Your task to perform on an android device: empty trash in google photos Image 0: 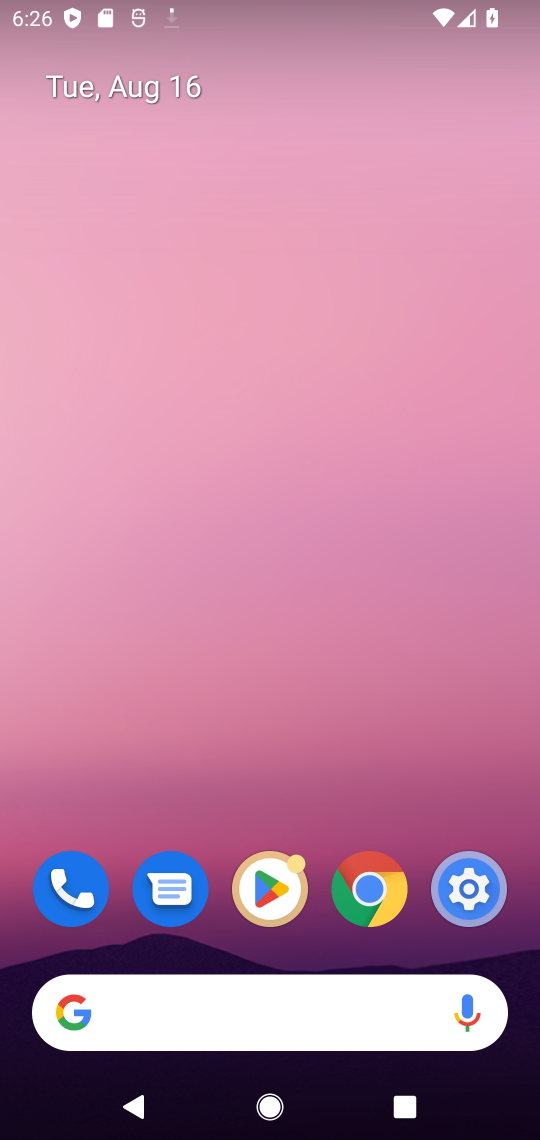
Step 0: drag from (389, 745) to (283, 0)
Your task to perform on an android device: empty trash in google photos Image 1: 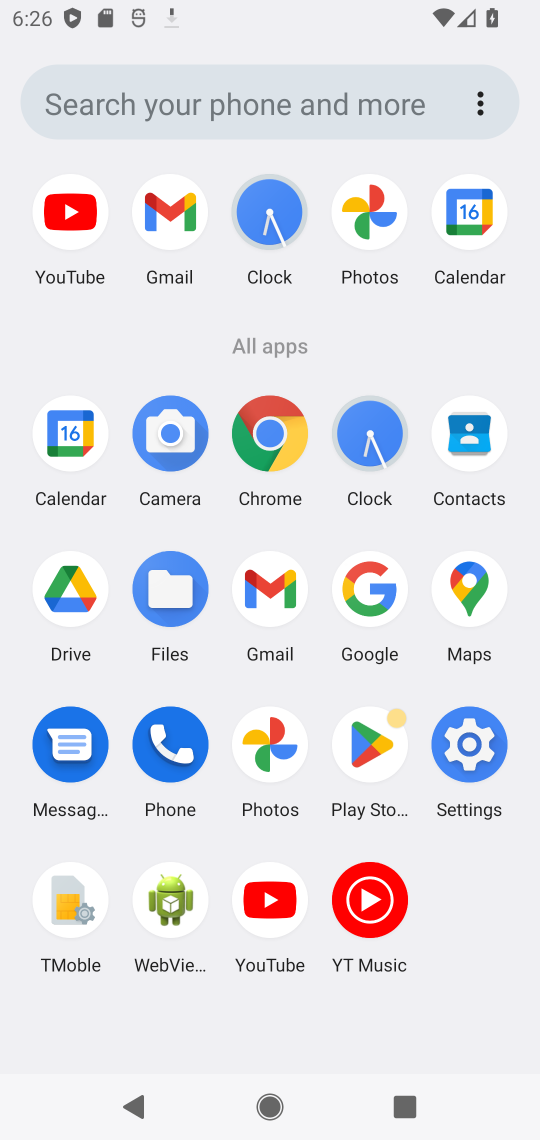
Step 1: click (376, 221)
Your task to perform on an android device: empty trash in google photos Image 2: 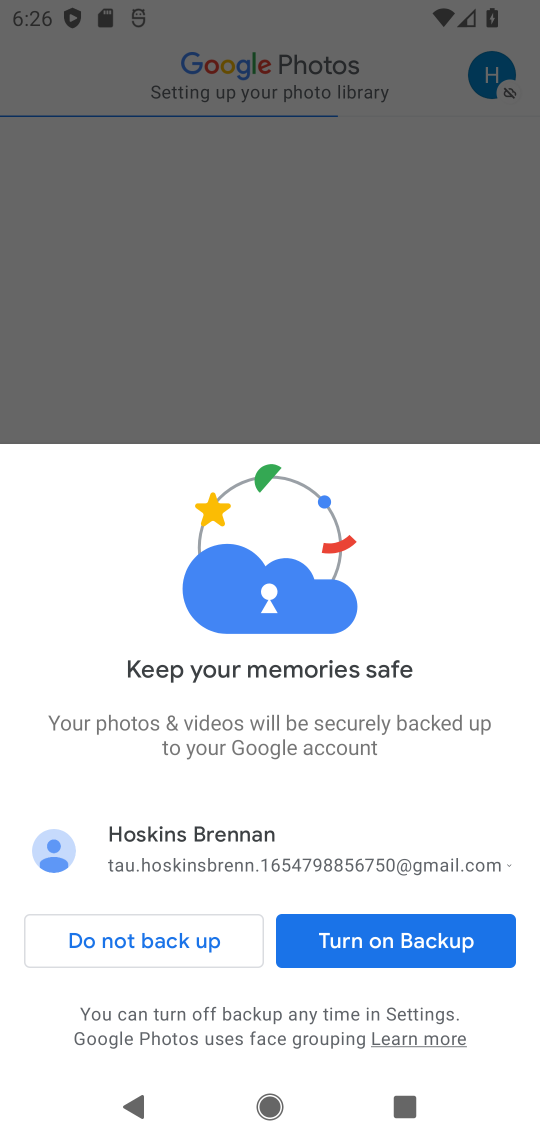
Step 2: click (388, 941)
Your task to perform on an android device: empty trash in google photos Image 3: 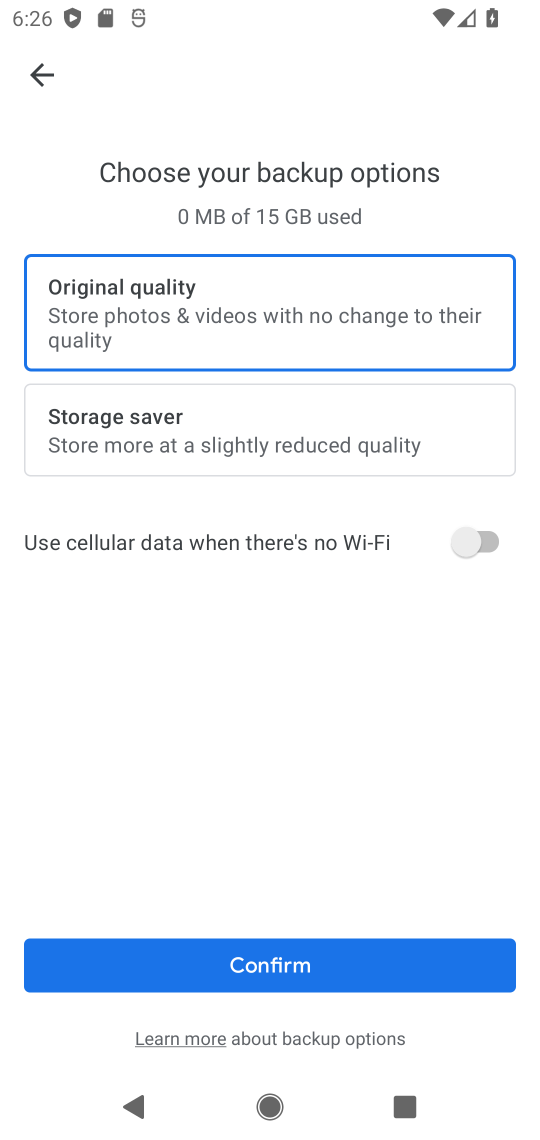
Step 3: click (395, 951)
Your task to perform on an android device: empty trash in google photos Image 4: 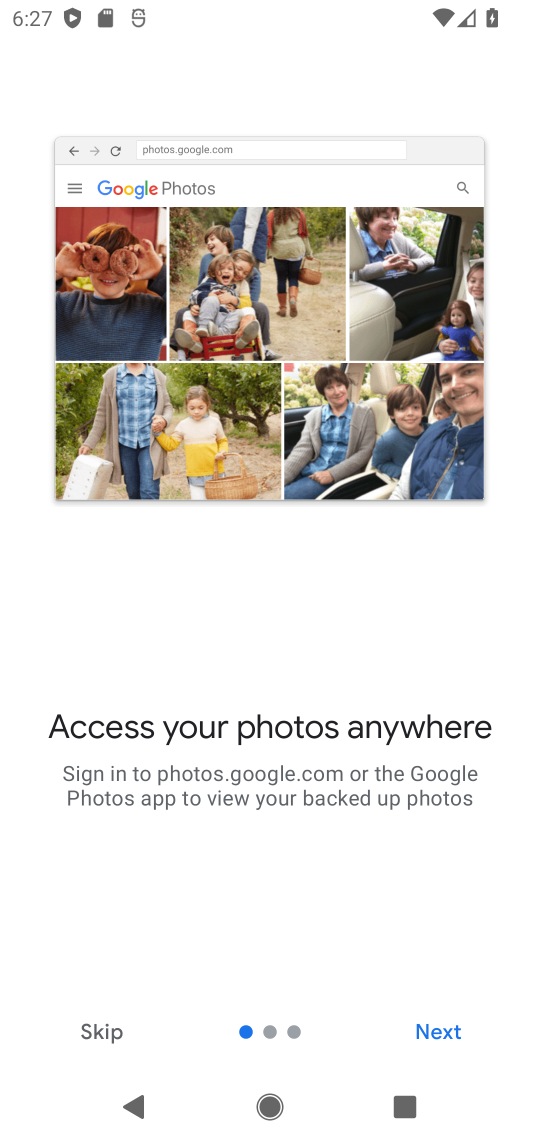
Step 4: click (418, 1022)
Your task to perform on an android device: empty trash in google photos Image 5: 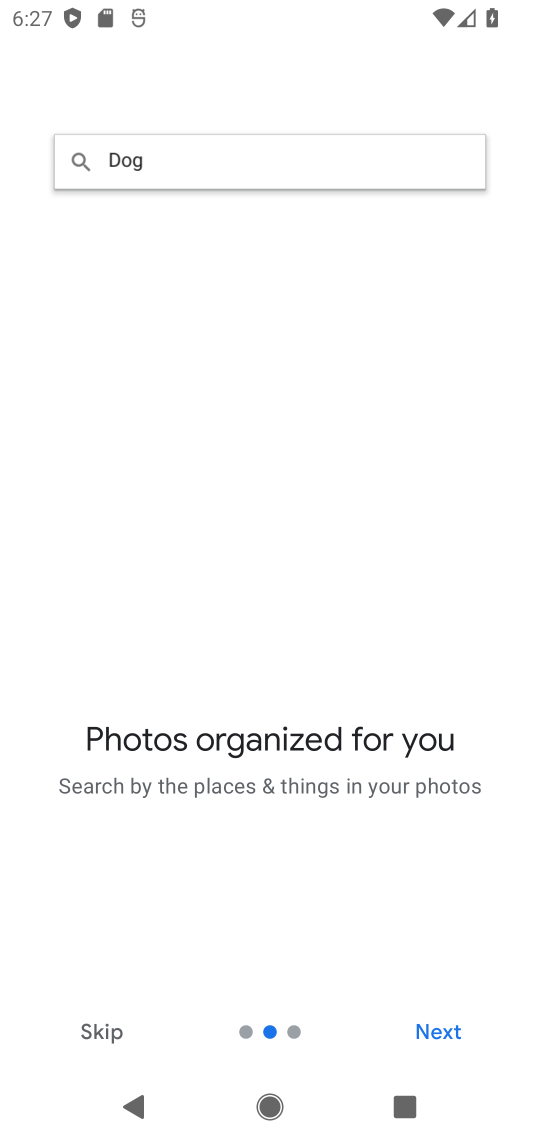
Step 5: click (465, 1019)
Your task to perform on an android device: empty trash in google photos Image 6: 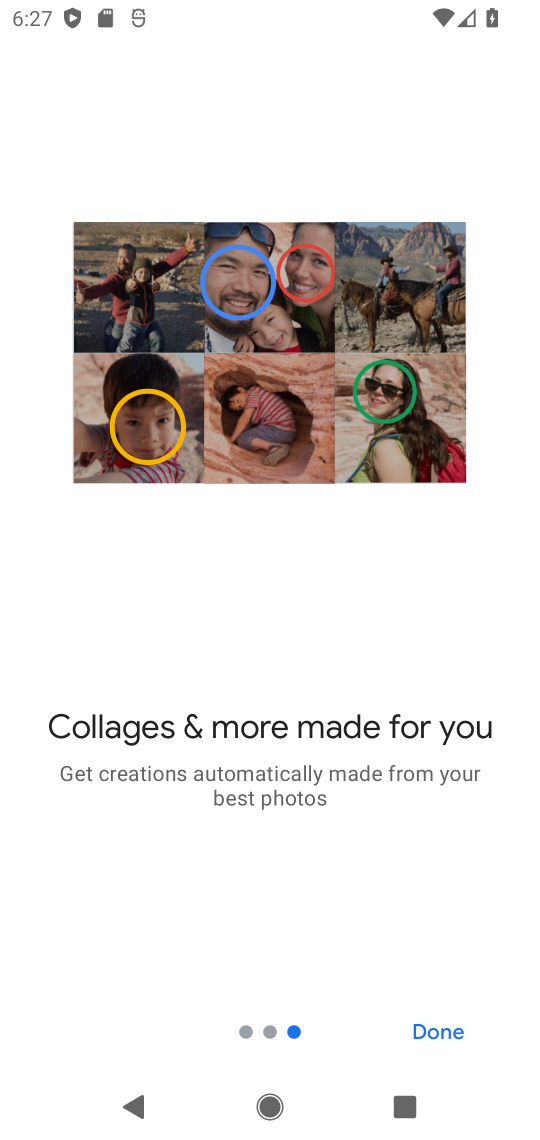
Step 6: click (464, 1018)
Your task to perform on an android device: empty trash in google photos Image 7: 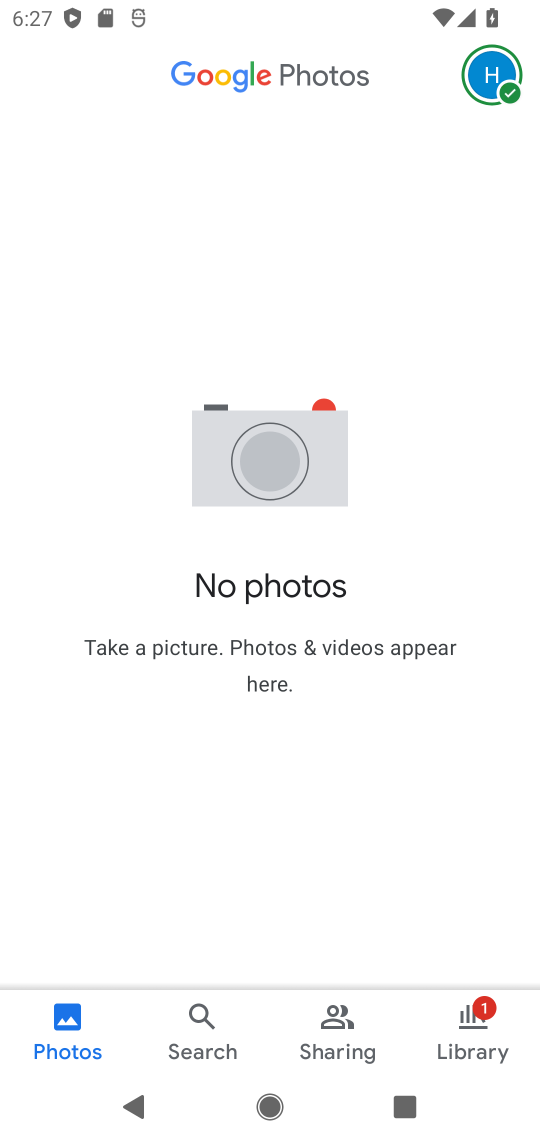
Step 7: click (497, 63)
Your task to perform on an android device: empty trash in google photos Image 8: 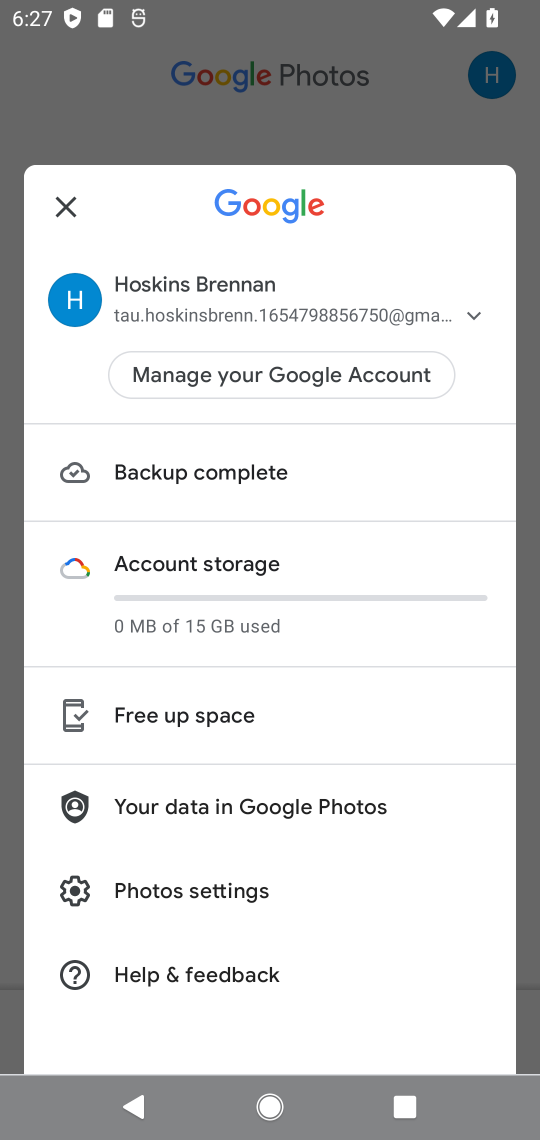
Step 8: click (46, 206)
Your task to perform on an android device: empty trash in google photos Image 9: 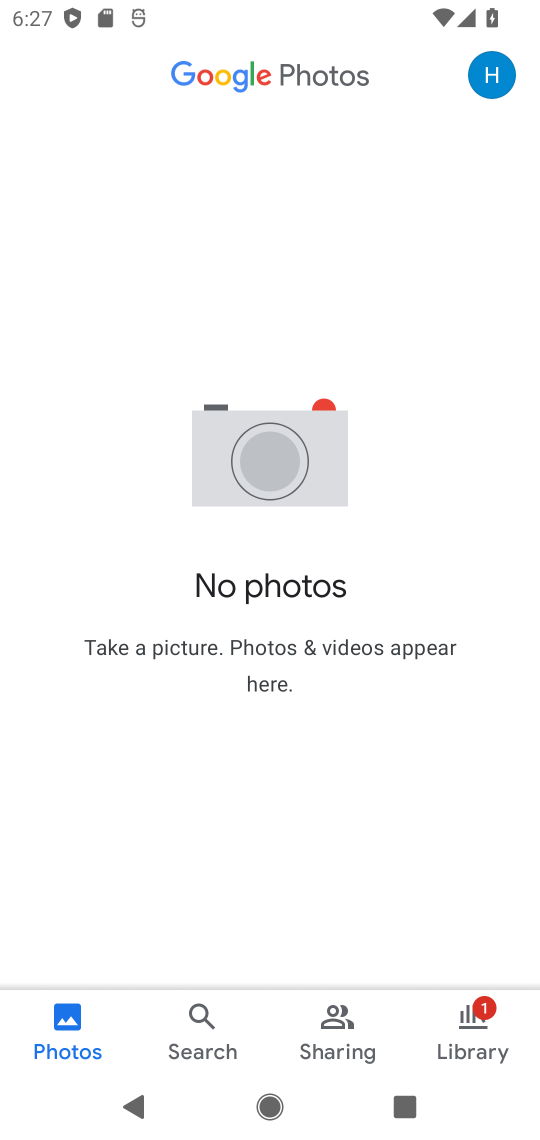
Step 9: click (495, 1036)
Your task to perform on an android device: empty trash in google photos Image 10: 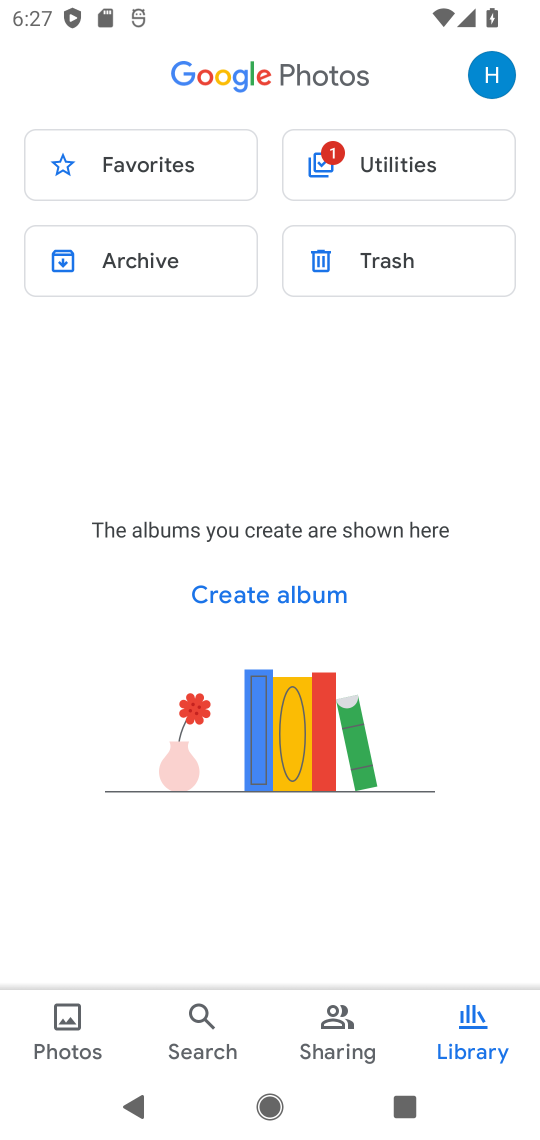
Step 10: click (346, 267)
Your task to perform on an android device: empty trash in google photos Image 11: 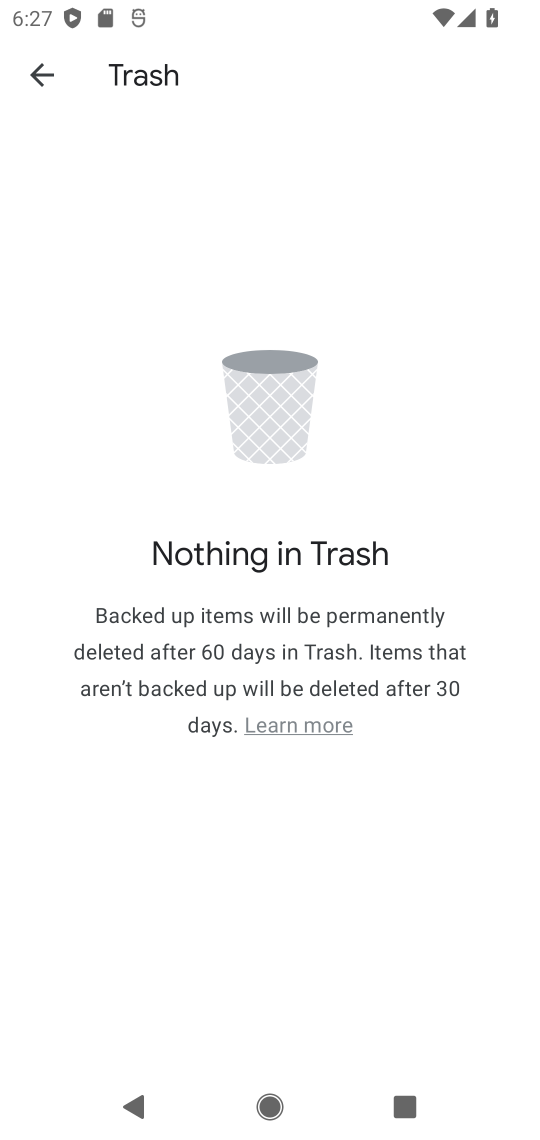
Step 11: task complete